Your task to perform on an android device: Set an alarm for 11am Image 0: 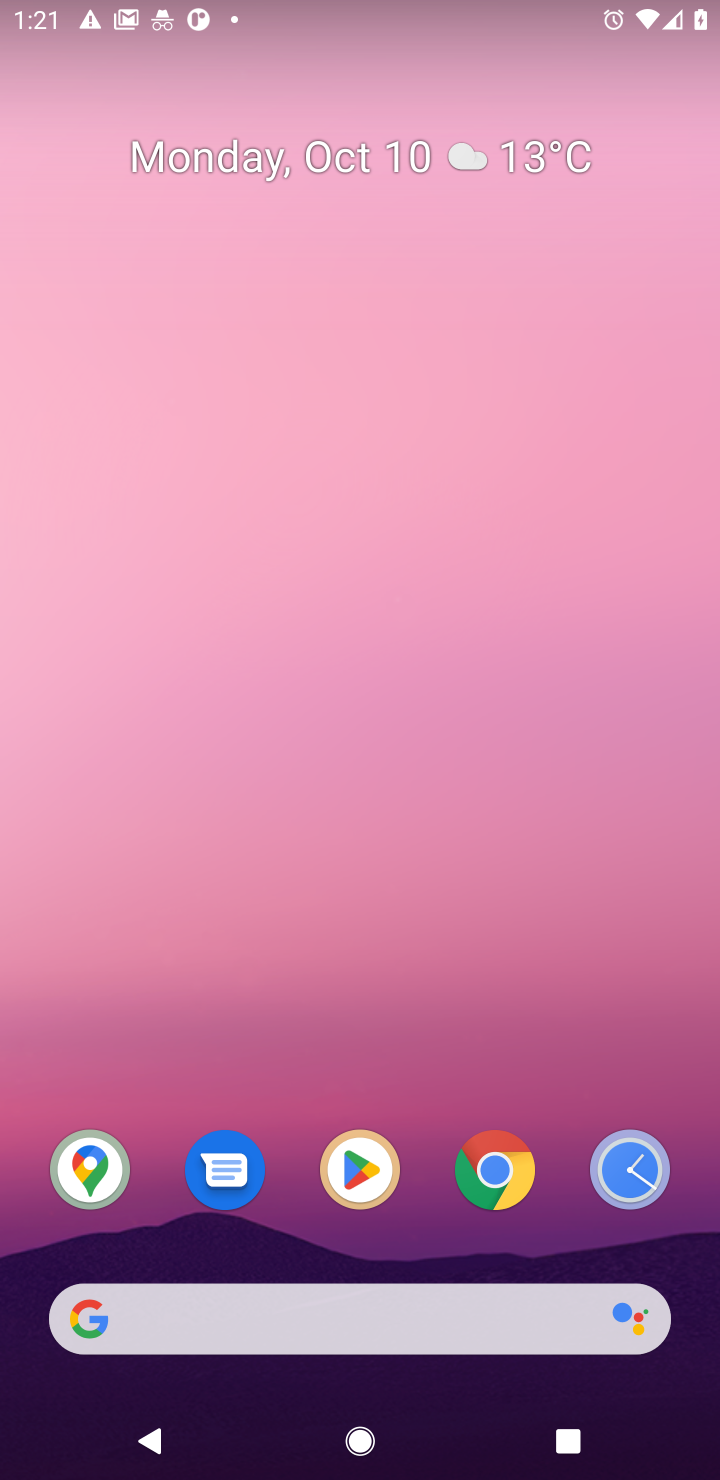
Step 0: drag from (421, 985) to (278, 260)
Your task to perform on an android device: Set an alarm for 11am Image 1: 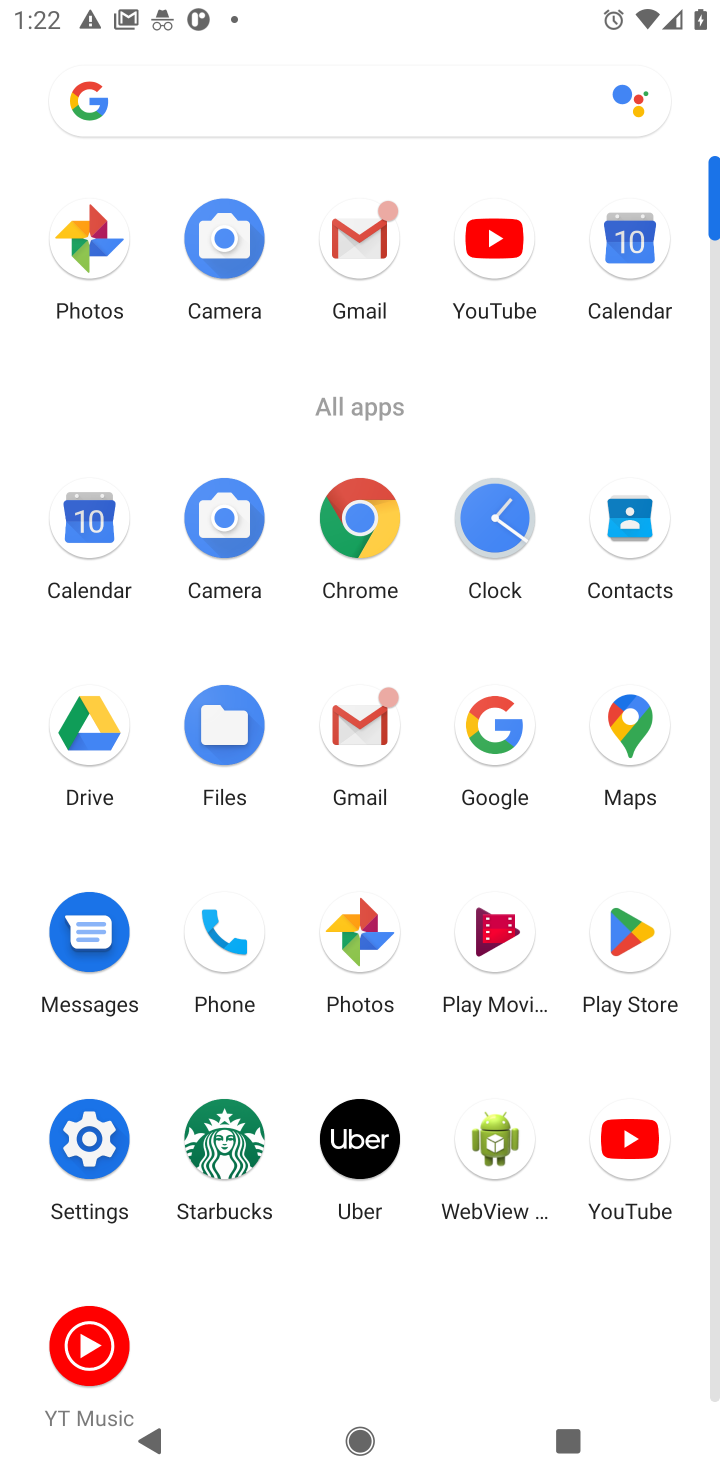
Step 1: click (506, 579)
Your task to perform on an android device: Set an alarm for 11am Image 2: 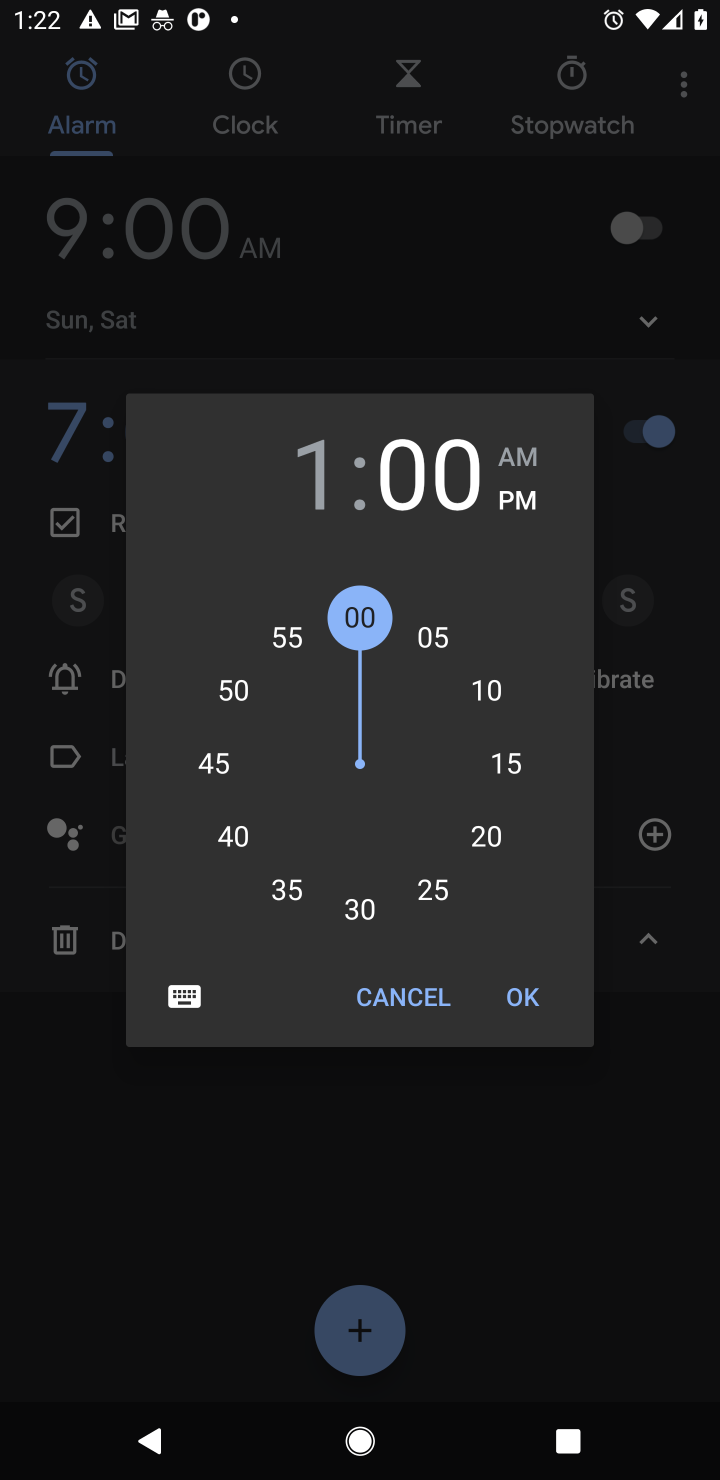
Step 2: click (292, 636)
Your task to perform on an android device: Set an alarm for 11am Image 3: 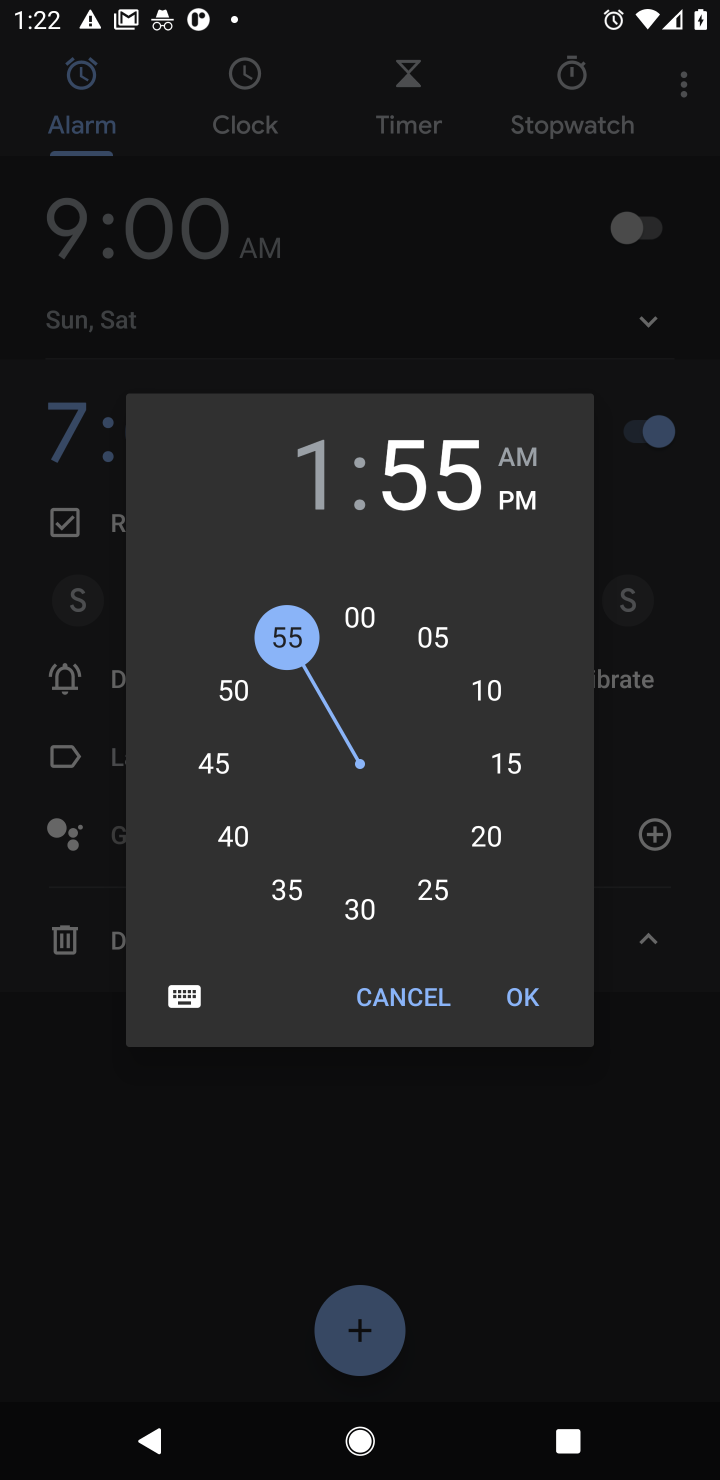
Step 3: click (324, 481)
Your task to perform on an android device: Set an alarm for 11am Image 4: 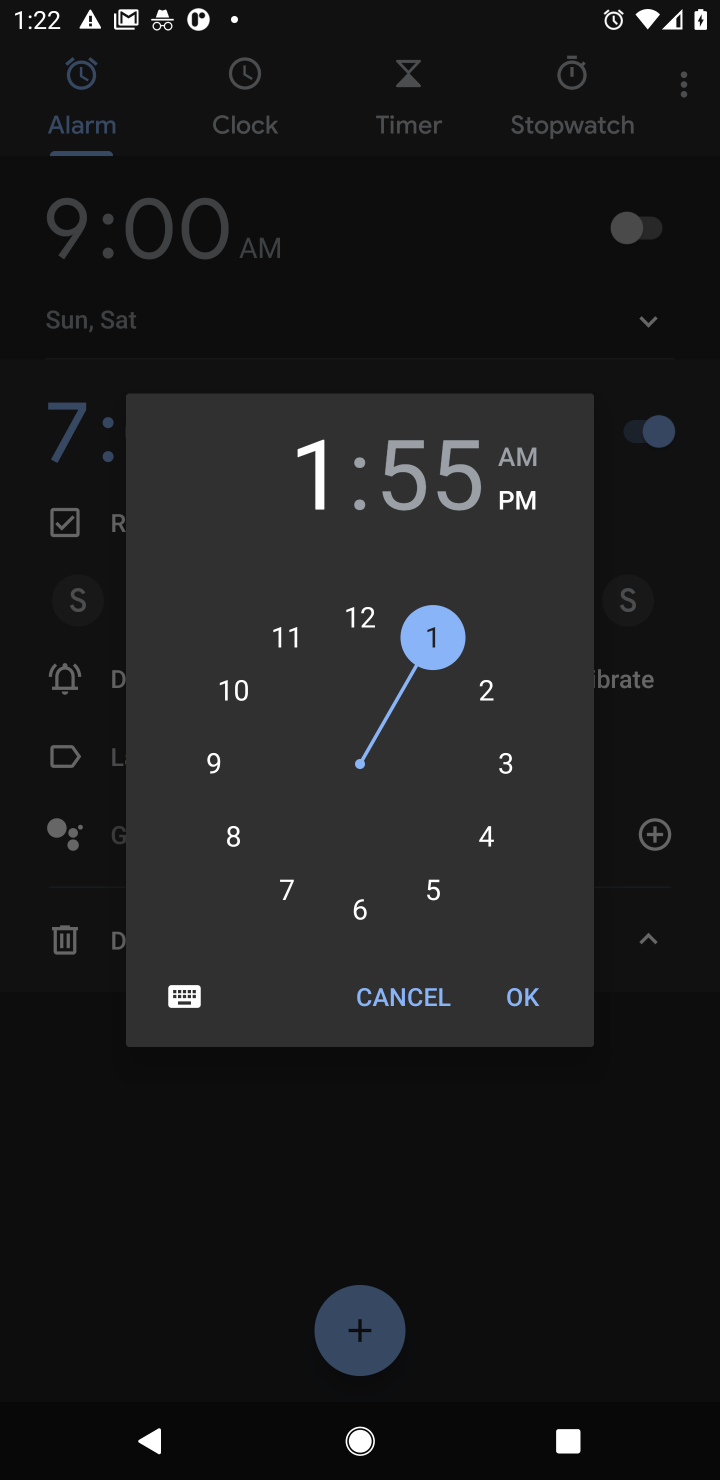
Step 4: click (292, 649)
Your task to perform on an android device: Set an alarm for 11am Image 5: 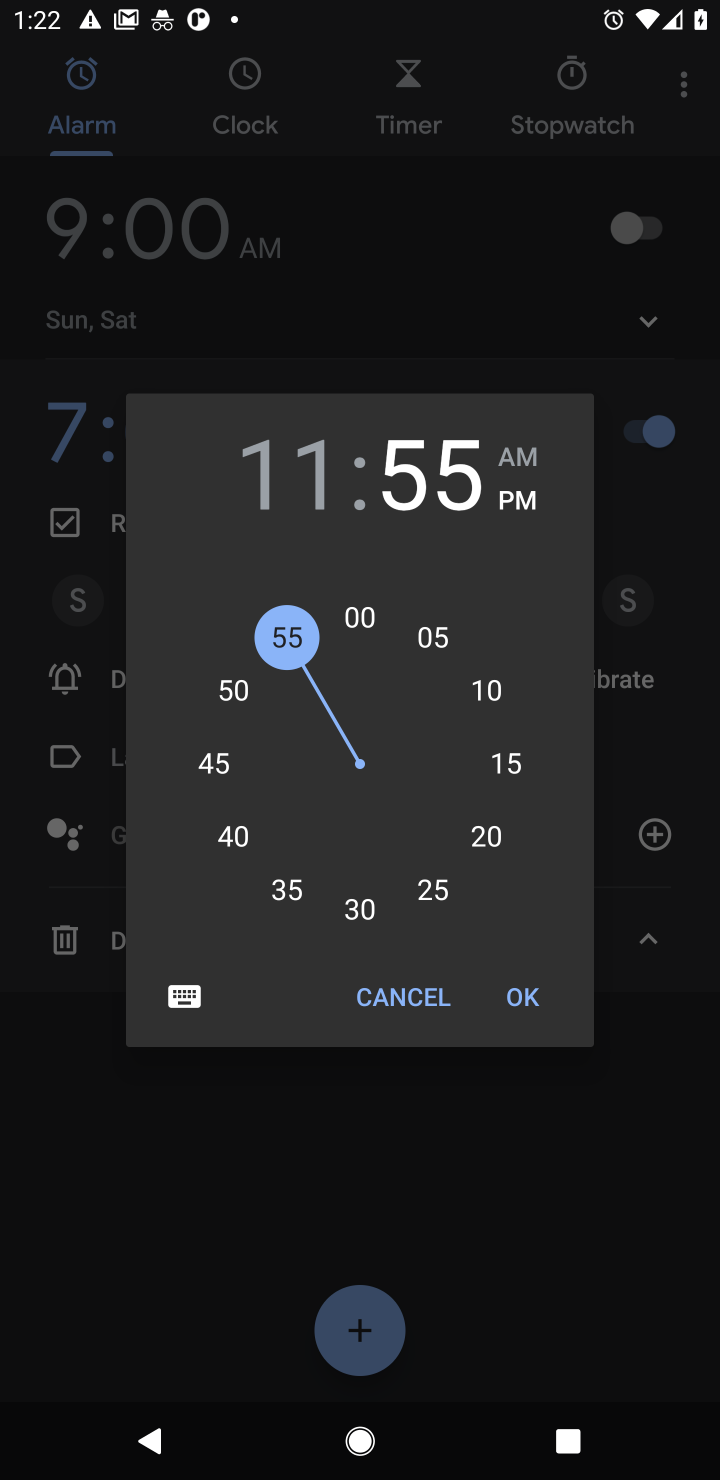
Step 5: click (362, 613)
Your task to perform on an android device: Set an alarm for 11am Image 6: 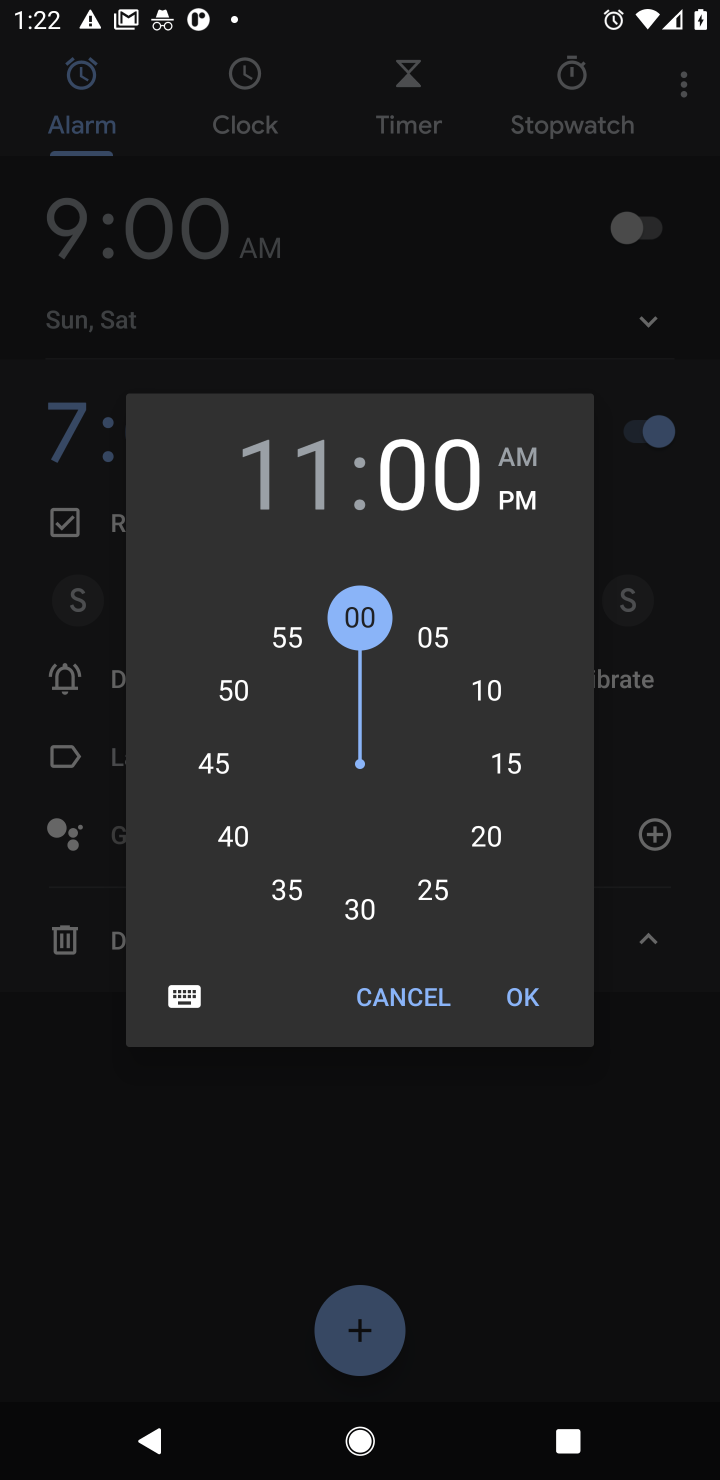
Step 6: click (527, 449)
Your task to perform on an android device: Set an alarm for 11am Image 7: 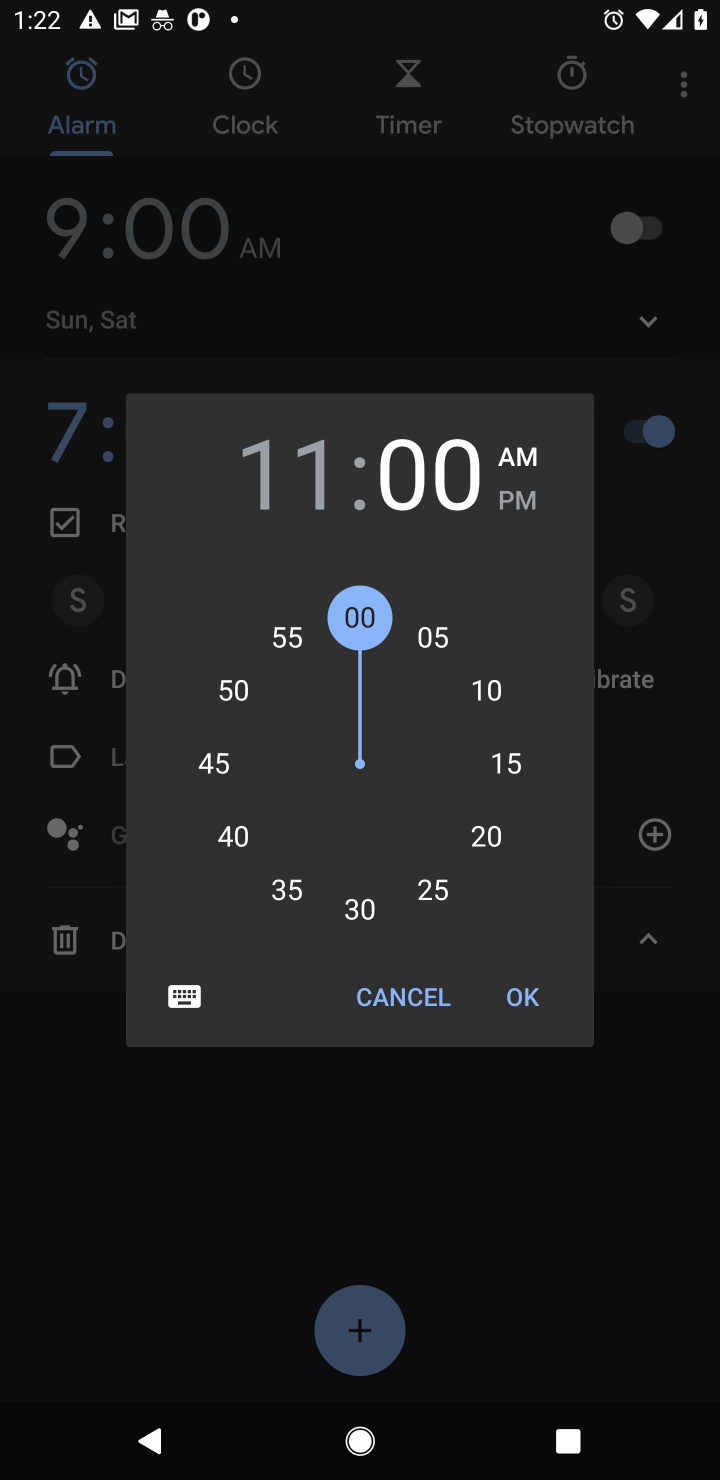
Step 7: click (522, 1008)
Your task to perform on an android device: Set an alarm for 11am Image 8: 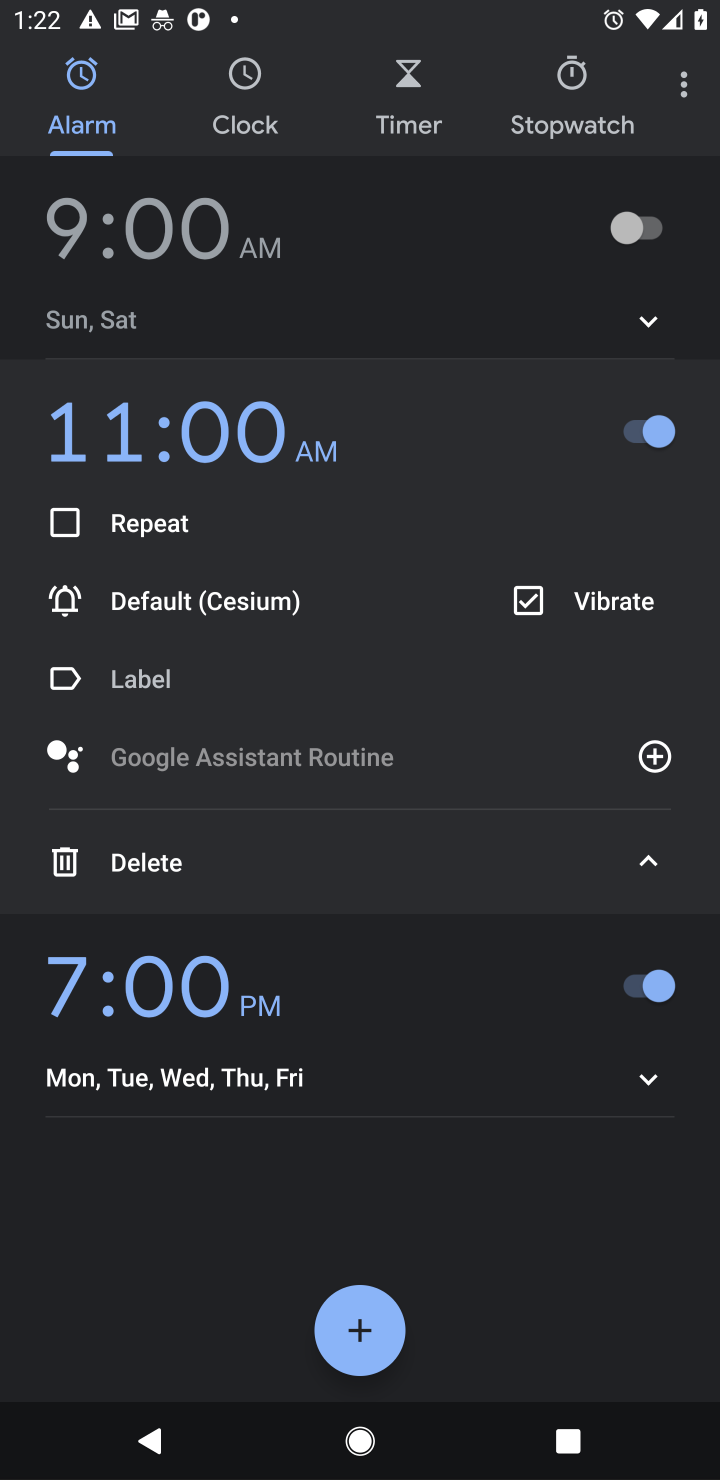
Step 8: task complete